Your task to perform on an android device: Open wifi settings Image 0: 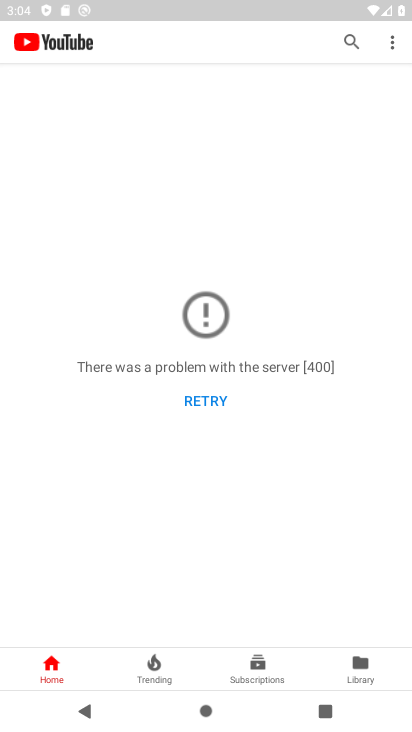
Step 0: press home button
Your task to perform on an android device: Open wifi settings Image 1: 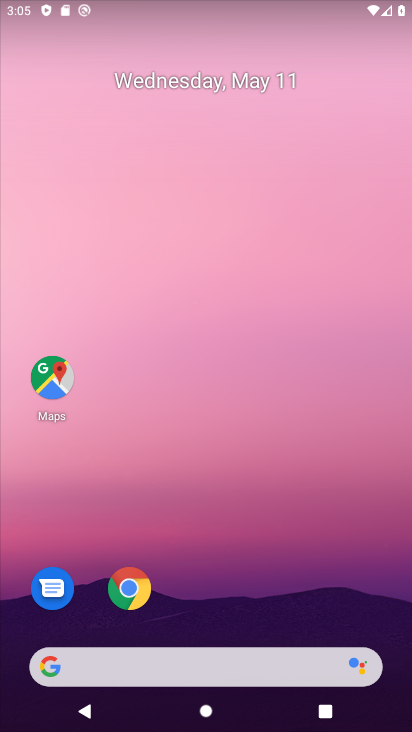
Step 1: drag from (220, 587) to (265, 2)
Your task to perform on an android device: Open wifi settings Image 2: 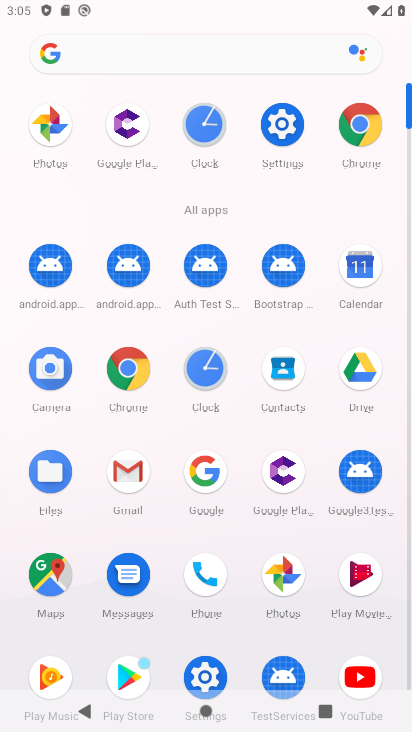
Step 2: click (279, 118)
Your task to perform on an android device: Open wifi settings Image 3: 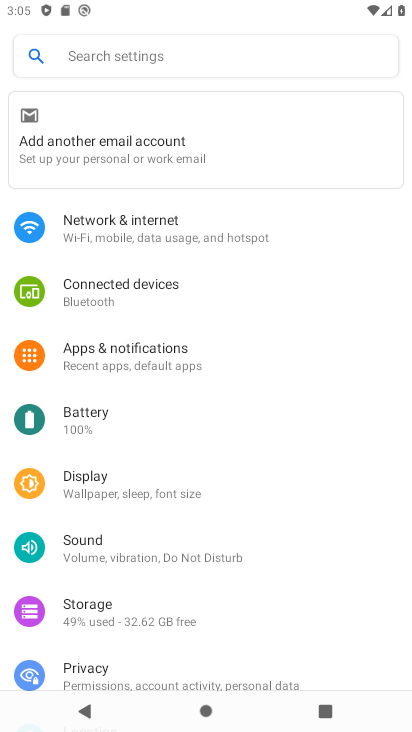
Step 3: click (88, 235)
Your task to perform on an android device: Open wifi settings Image 4: 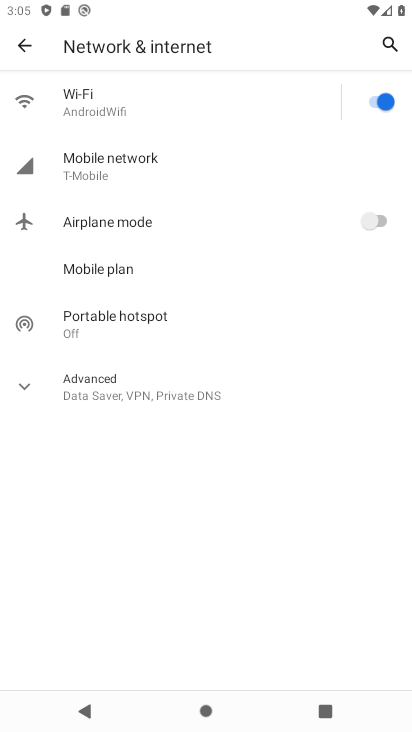
Step 4: click (120, 113)
Your task to perform on an android device: Open wifi settings Image 5: 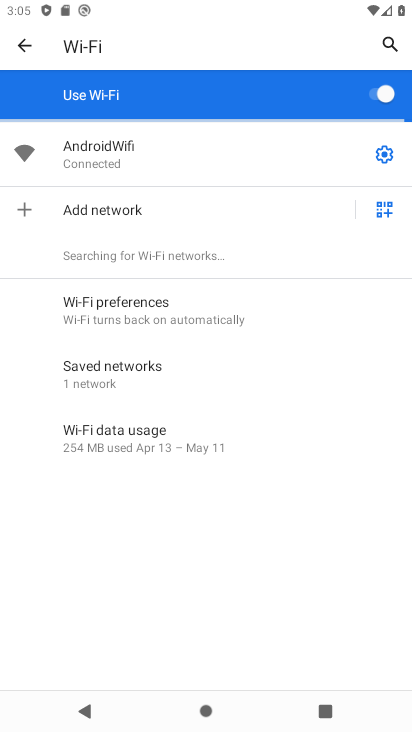
Step 5: task complete